Your task to perform on an android device: open app "Booking.com: Hotels and more" (install if not already installed) Image 0: 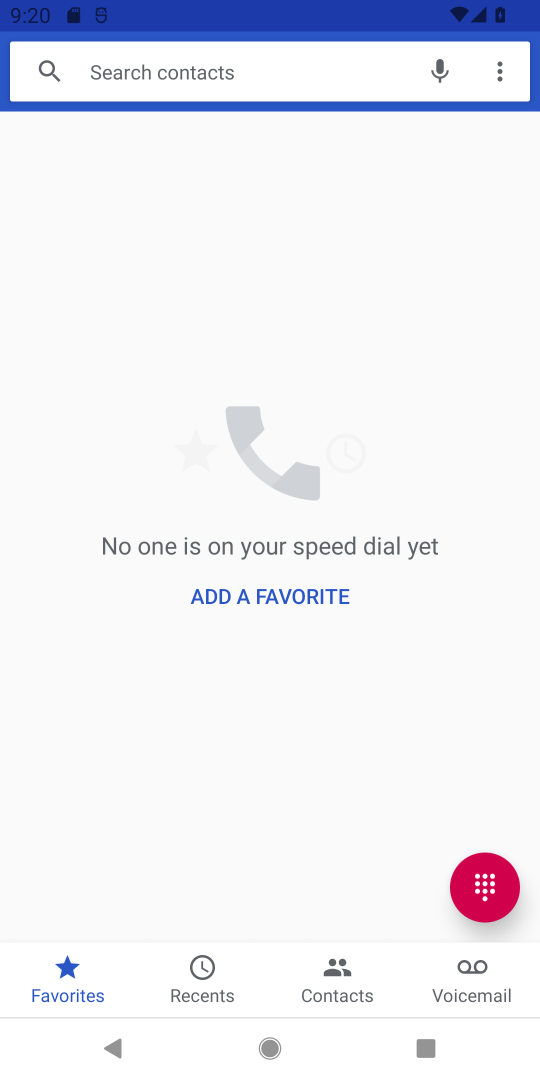
Step 0: press home button
Your task to perform on an android device: open app "Booking.com: Hotels and more" (install if not already installed) Image 1: 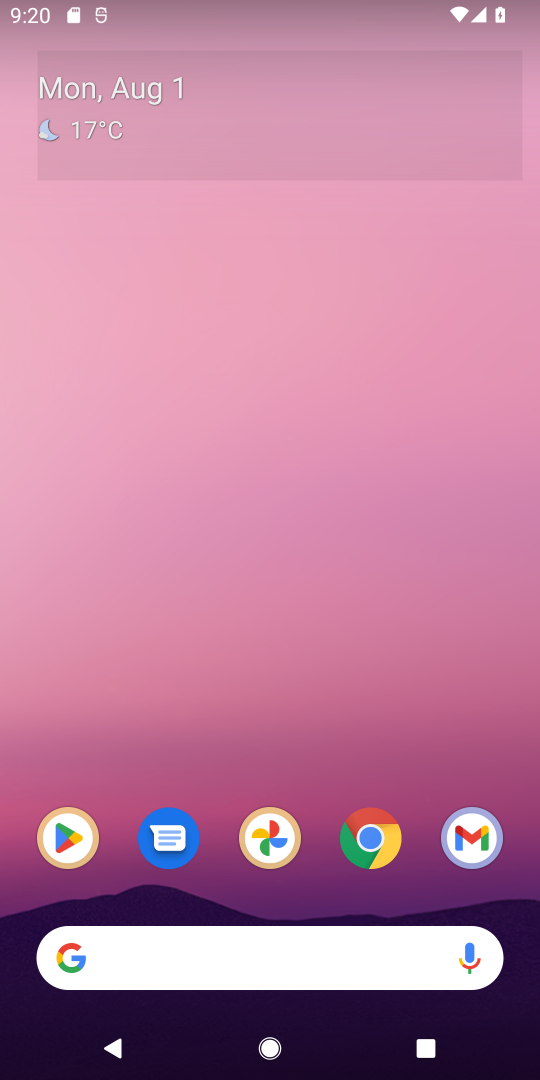
Step 1: press home button
Your task to perform on an android device: open app "Booking.com: Hotels and more" (install if not already installed) Image 2: 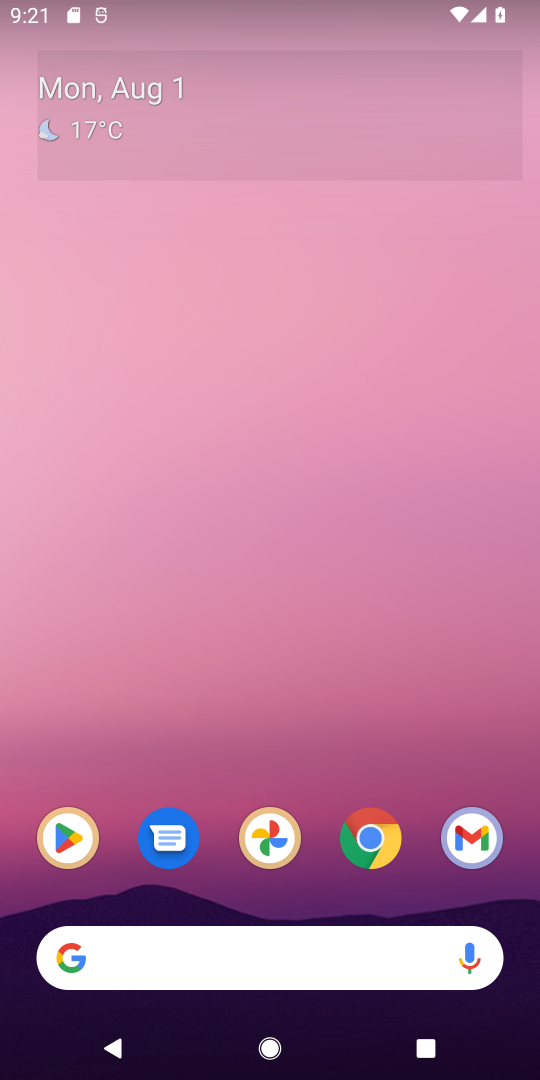
Step 2: click (84, 853)
Your task to perform on an android device: open app "Booking.com: Hotels and more" (install if not already installed) Image 3: 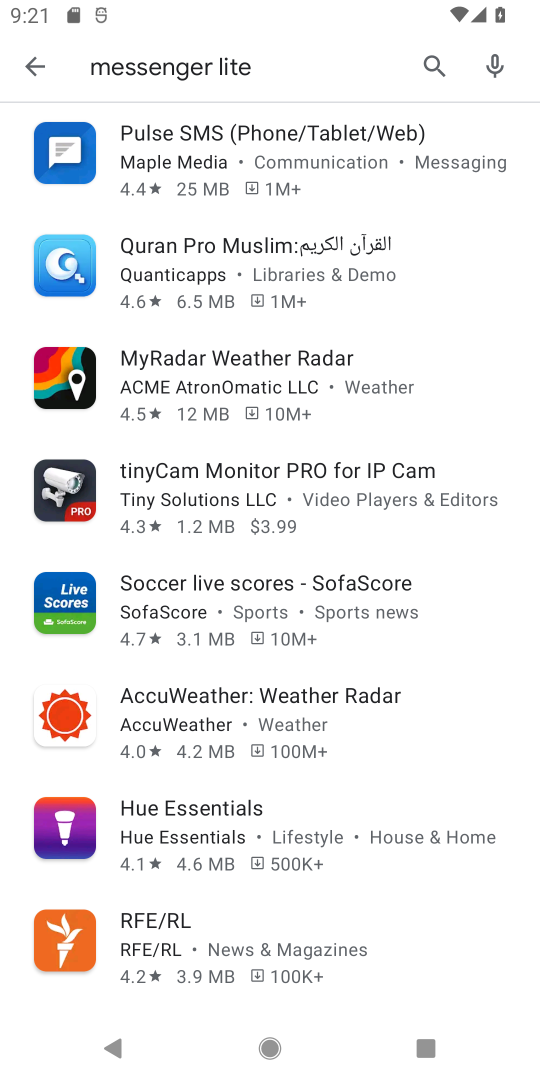
Step 3: click (419, 68)
Your task to perform on an android device: open app "Booking.com: Hotels and more" (install if not already installed) Image 4: 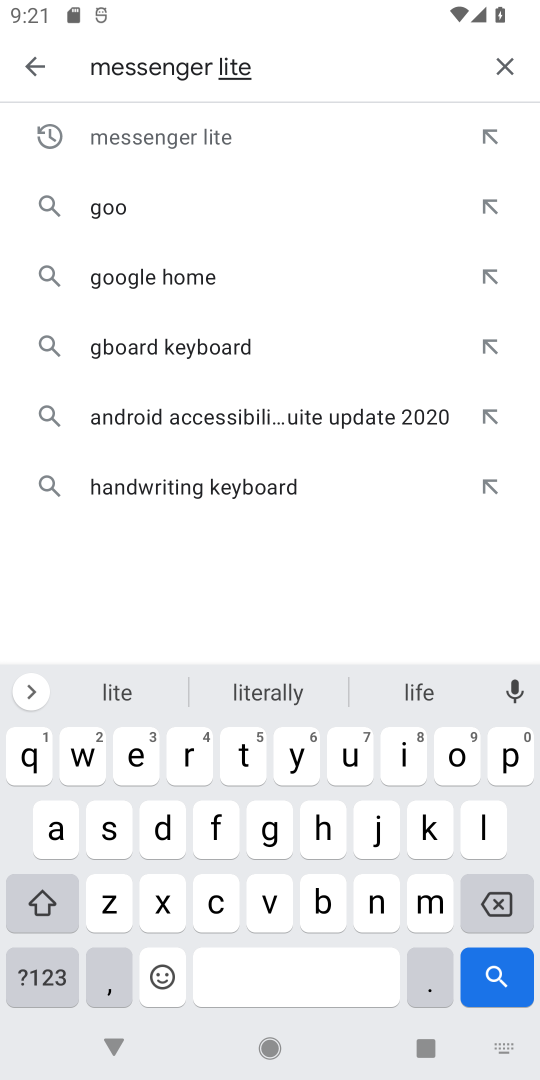
Step 4: click (505, 70)
Your task to perform on an android device: open app "Booking.com: Hotels and more" (install if not already installed) Image 5: 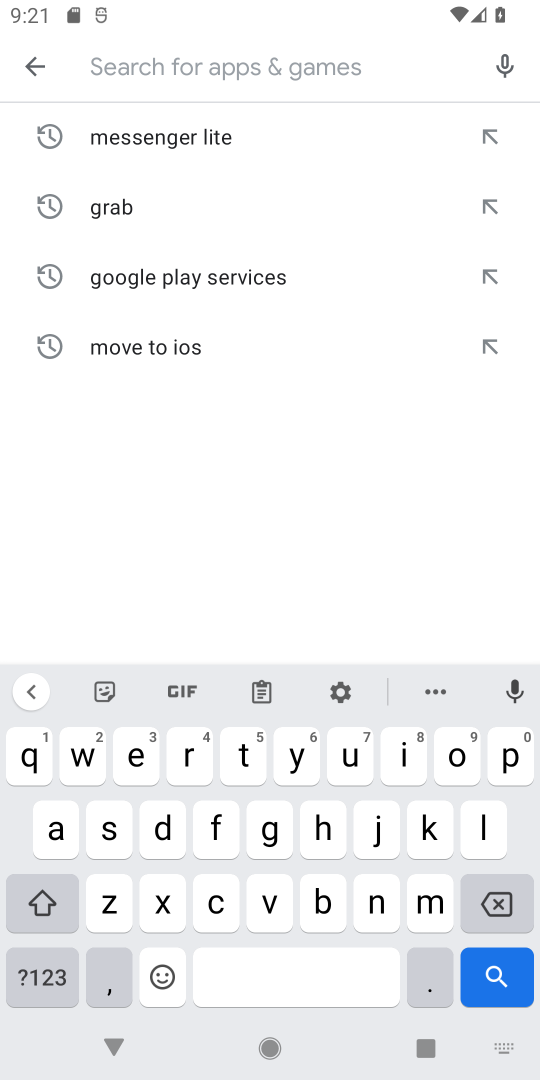
Step 5: type "booking"
Your task to perform on an android device: open app "Booking.com: Hotels and more" (install if not already installed) Image 6: 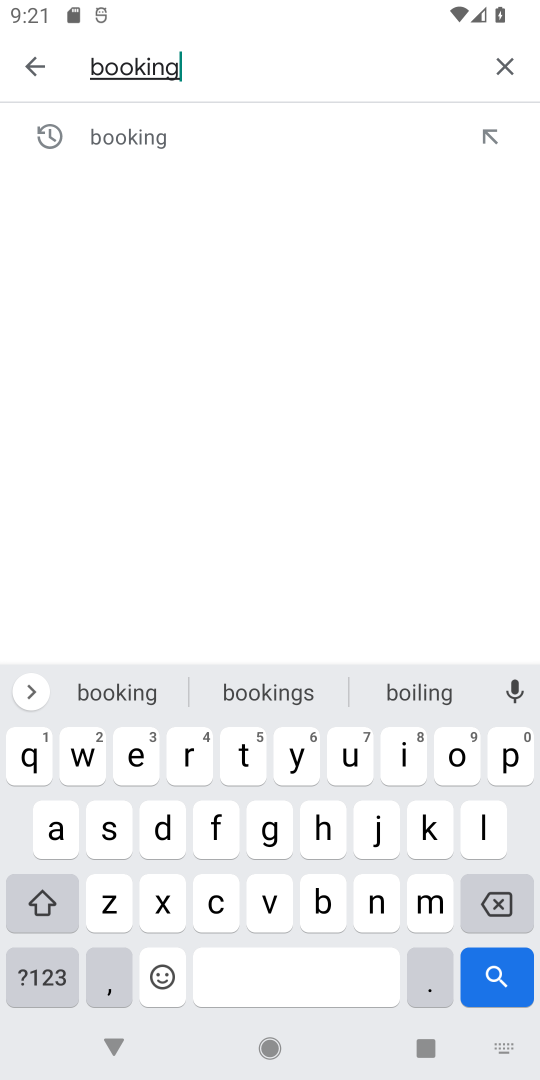
Step 6: click (132, 144)
Your task to perform on an android device: open app "Booking.com: Hotels and more" (install if not already installed) Image 7: 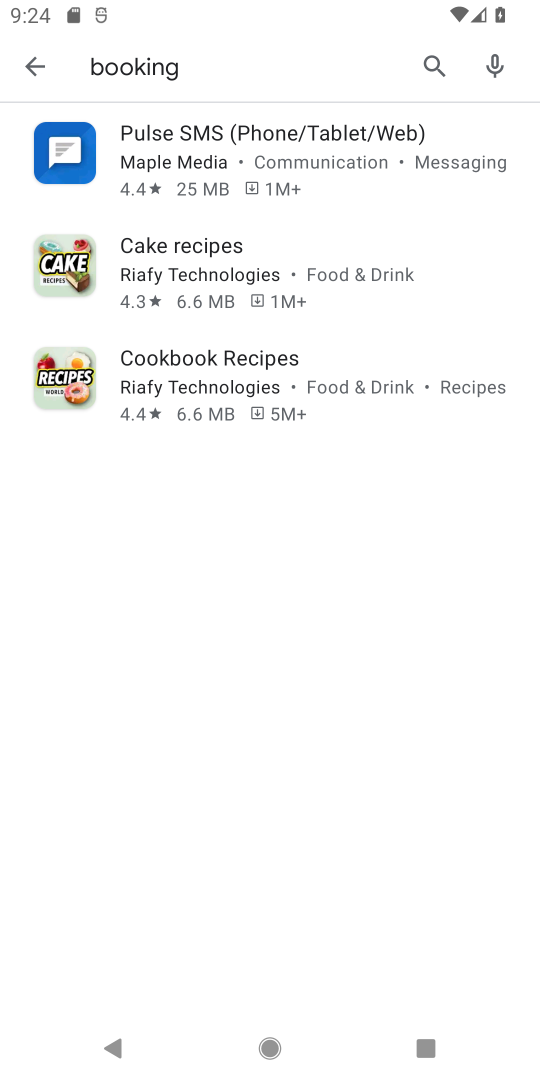
Step 7: task complete